Your task to perform on an android device: stop showing notifications on the lock screen Image 0: 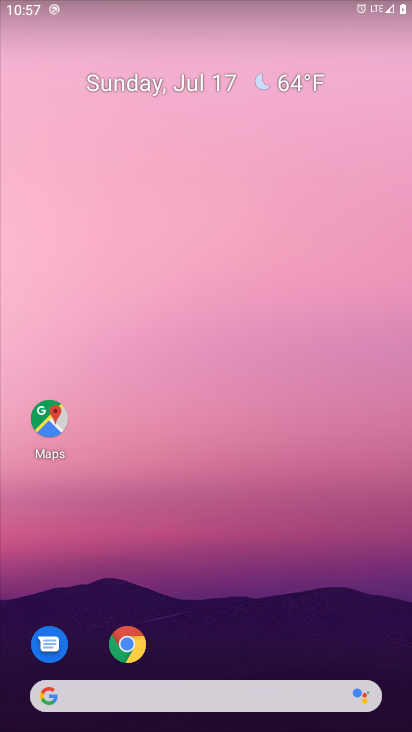
Step 0: drag from (241, 586) to (240, 76)
Your task to perform on an android device: stop showing notifications on the lock screen Image 1: 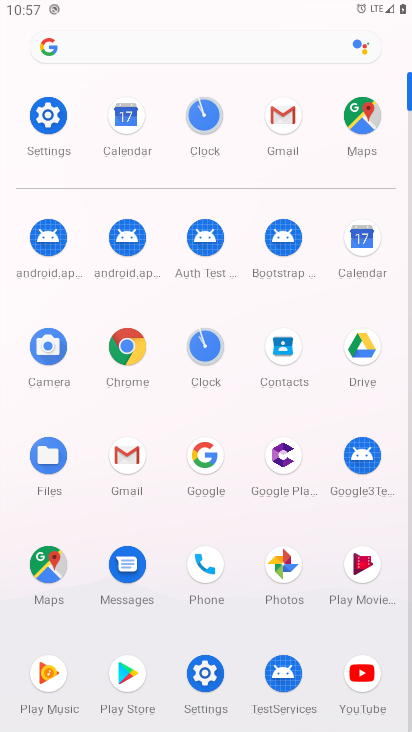
Step 1: click (50, 119)
Your task to perform on an android device: stop showing notifications on the lock screen Image 2: 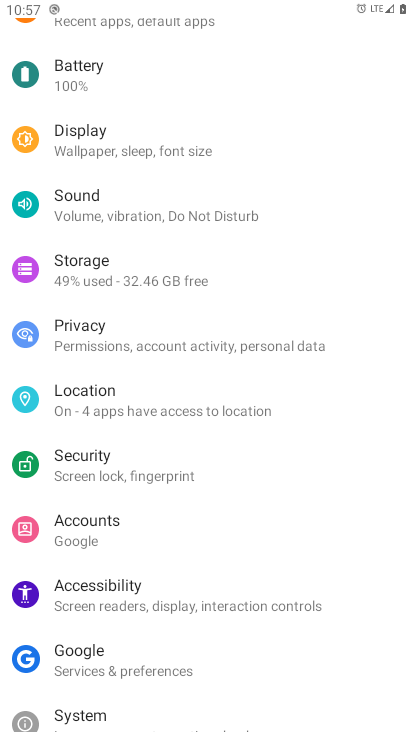
Step 2: drag from (171, 95) to (180, 241)
Your task to perform on an android device: stop showing notifications on the lock screen Image 3: 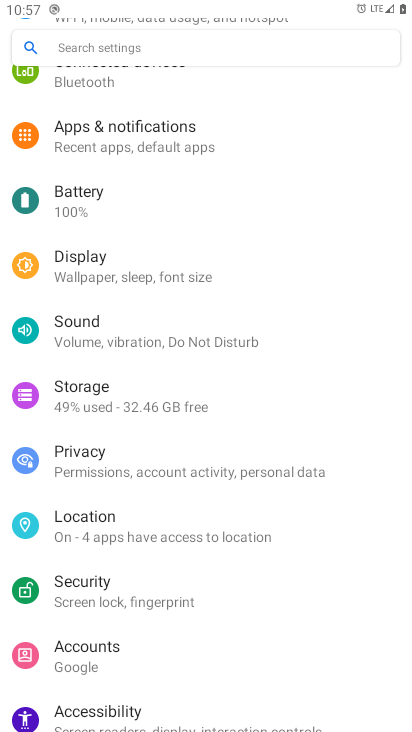
Step 3: click (134, 112)
Your task to perform on an android device: stop showing notifications on the lock screen Image 4: 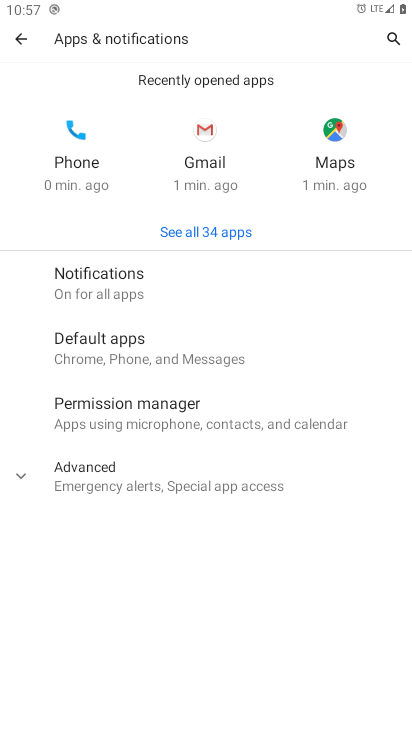
Step 4: click (144, 272)
Your task to perform on an android device: stop showing notifications on the lock screen Image 5: 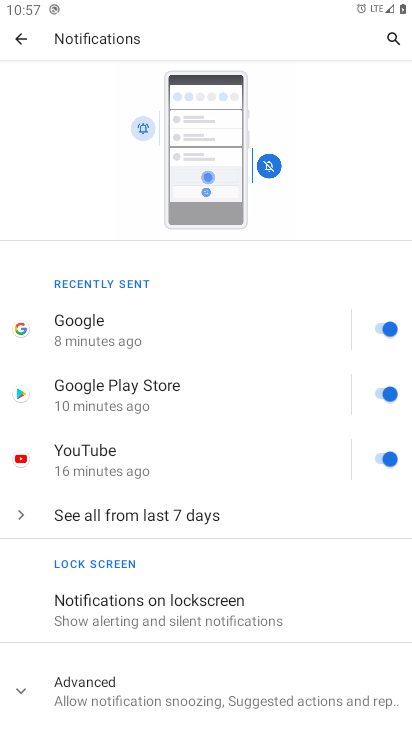
Step 5: click (120, 615)
Your task to perform on an android device: stop showing notifications on the lock screen Image 6: 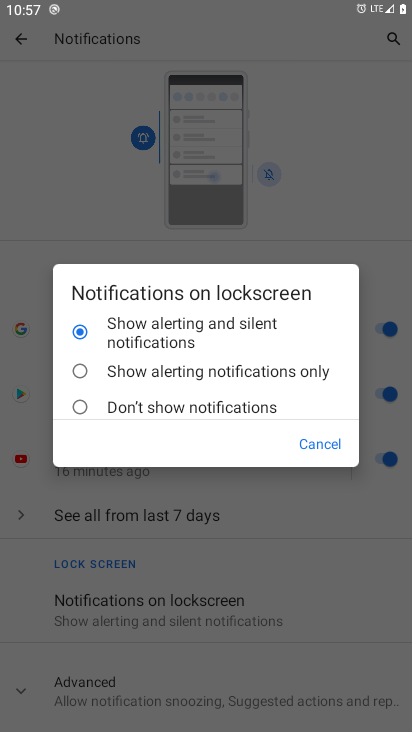
Step 6: click (78, 409)
Your task to perform on an android device: stop showing notifications on the lock screen Image 7: 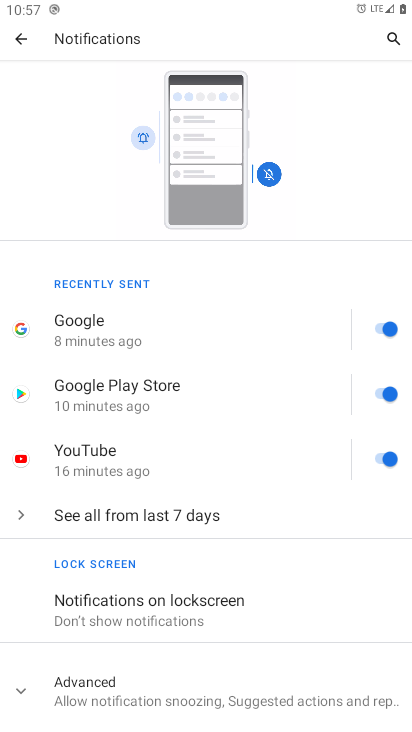
Step 7: task complete